Your task to perform on an android device: Open ESPN.com Image 0: 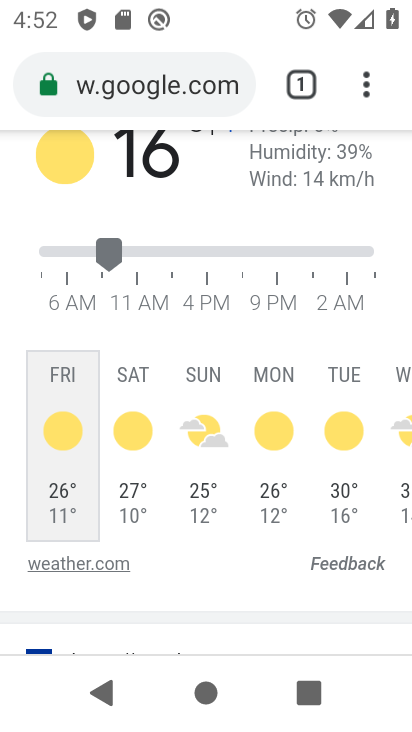
Step 0: click (187, 75)
Your task to perform on an android device: Open ESPN.com Image 1: 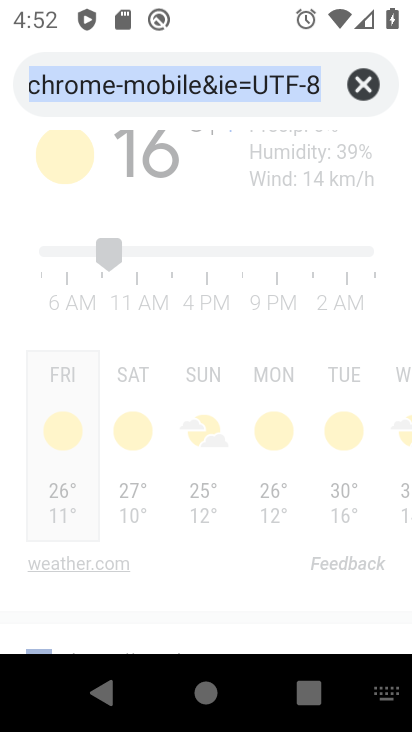
Step 1: click (357, 87)
Your task to perform on an android device: Open ESPN.com Image 2: 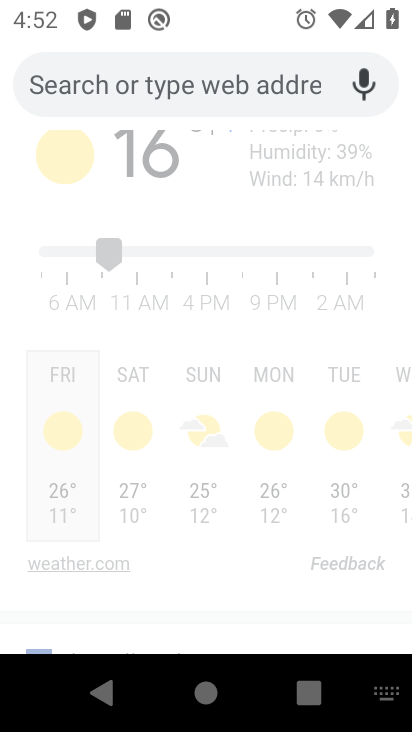
Step 2: type "espn.com"
Your task to perform on an android device: Open ESPN.com Image 3: 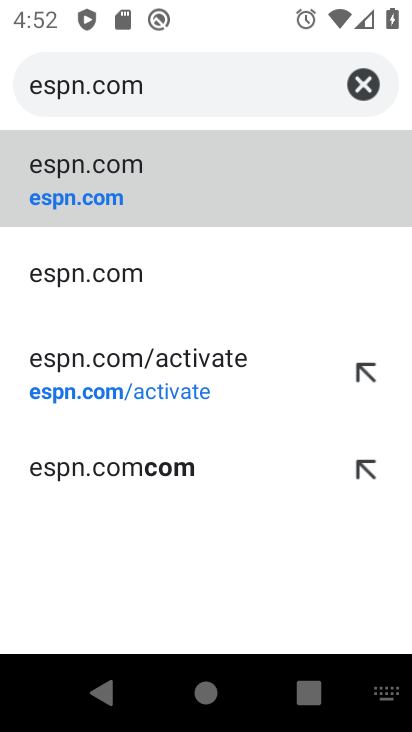
Step 3: click (65, 199)
Your task to perform on an android device: Open ESPN.com Image 4: 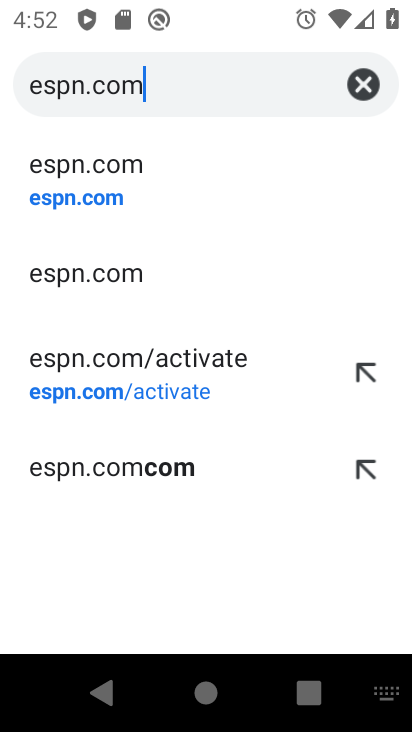
Step 4: click (68, 202)
Your task to perform on an android device: Open ESPN.com Image 5: 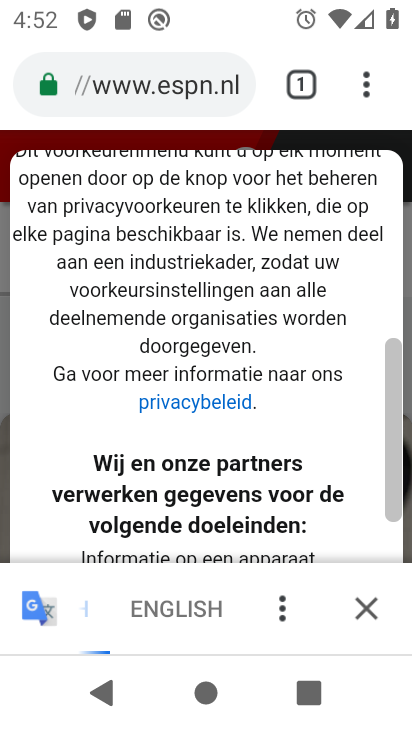
Step 5: task complete